Your task to perform on an android device: Turn off the flashlight Image 0: 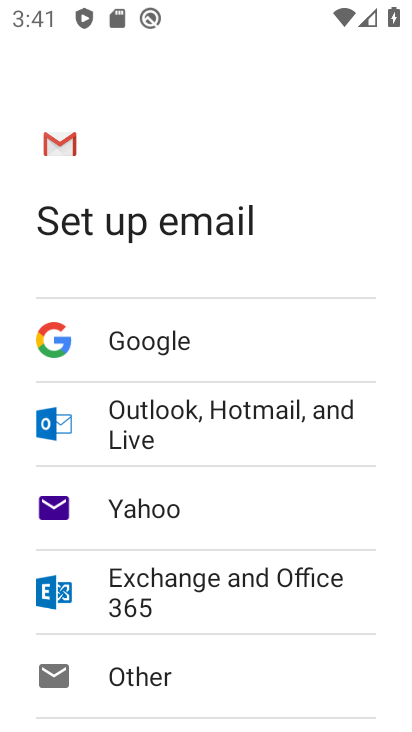
Step 0: press home button
Your task to perform on an android device: Turn off the flashlight Image 1: 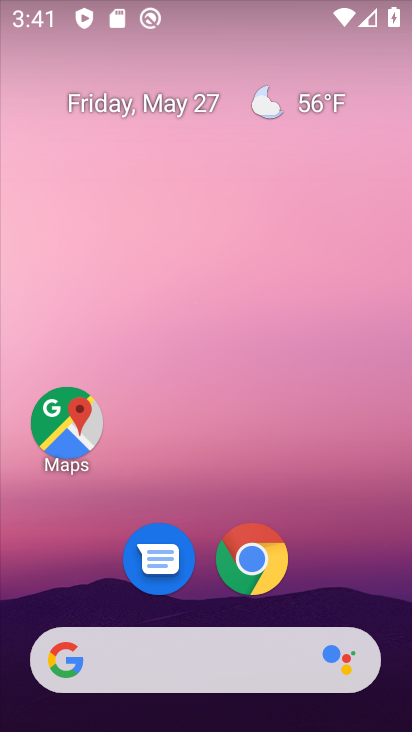
Step 1: task complete